Your task to perform on an android device: Open privacy settings Image 0: 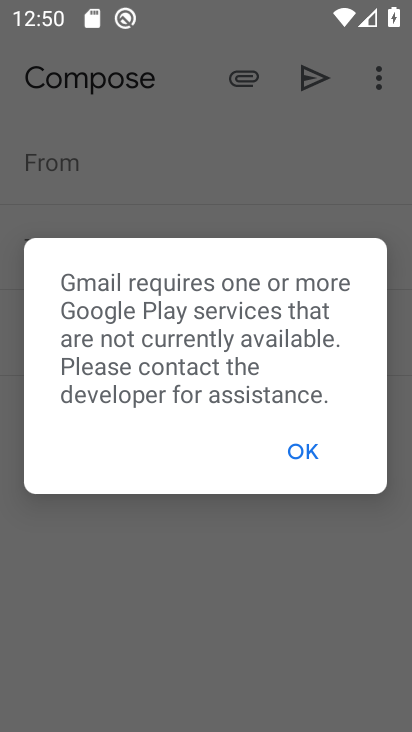
Step 0: press home button
Your task to perform on an android device: Open privacy settings Image 1: 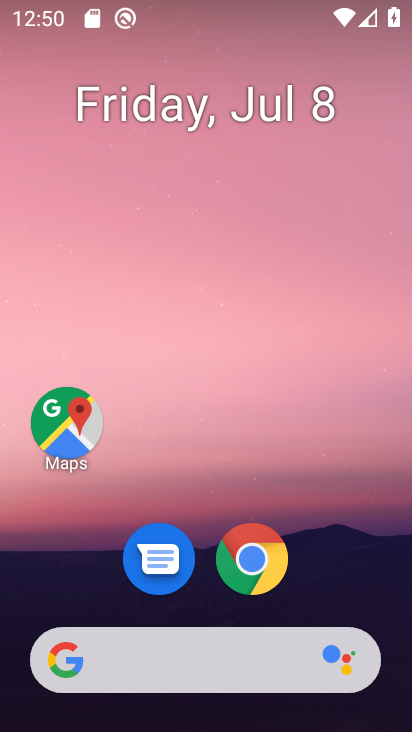
Step 1: drag from (230, 624) to (203, 7)
Your task to perform on an android device: Open privacy settings Image 2: 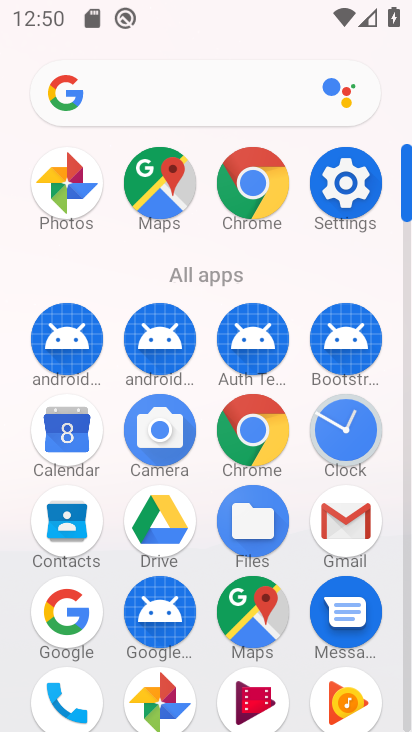
Step 2: click (341, 182)
Your task to perform on an android device: Open privacy settings Image 3: 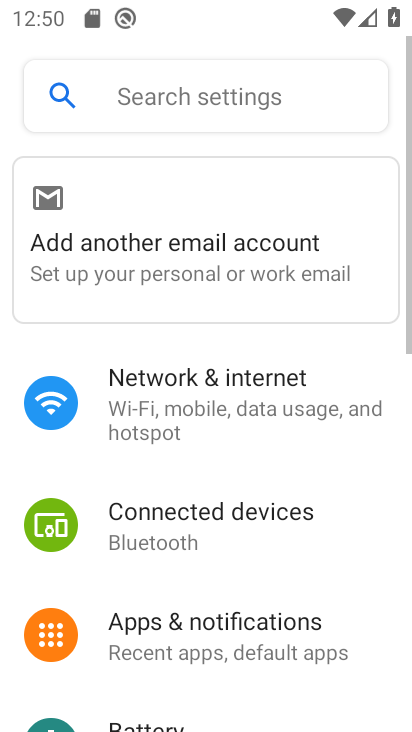
Step 3: drag from (272, 524) to (277, 58)
Your task to perform on an android device: Open privacy settings Image 4: 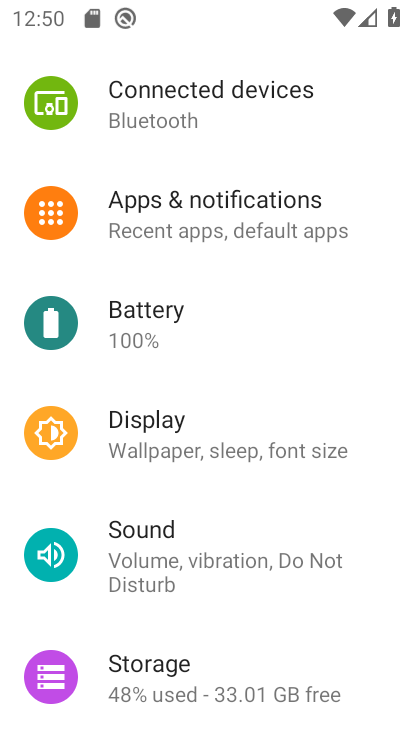
Step 4: drag from (176, 636) to (166, 187)
Your task to perform on an android device: Open privacy settings Image 5: 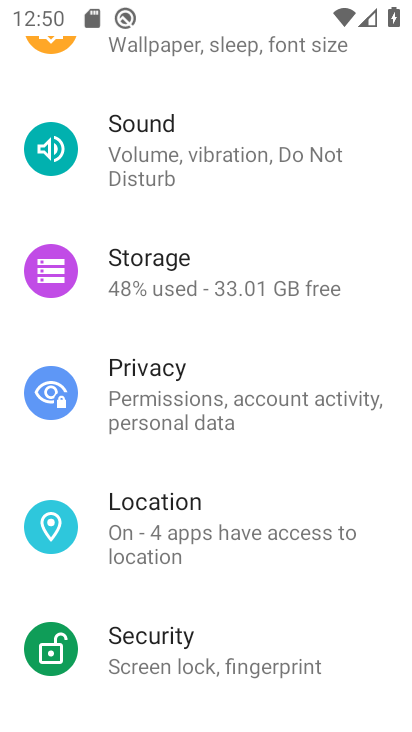
Step 5: click (165, 398)
Your task to perform on an android device: Open privacy settings Image 6: 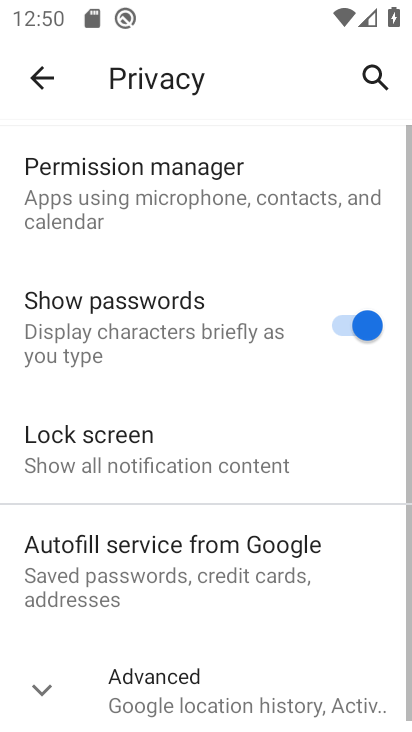
Step 6: task complete